Your task to perform on an android device: Open Youtube and go to the subscriptions tab Image 0: 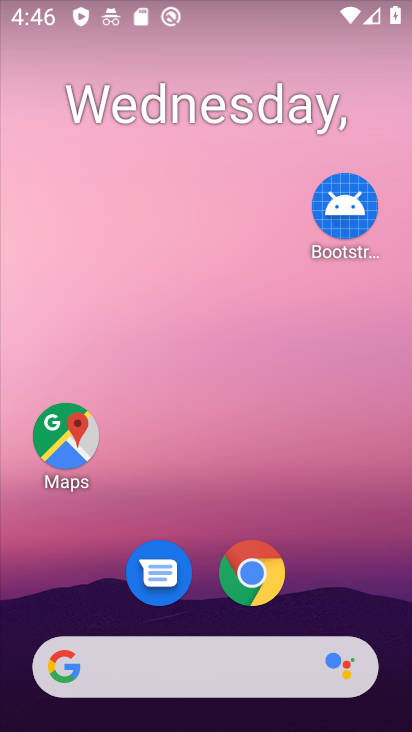
Step 0: drag from (361, 563) to (310, 151)
Your task to perform on an android device: Open Youtube and go to the subscriptions tab Image 1: 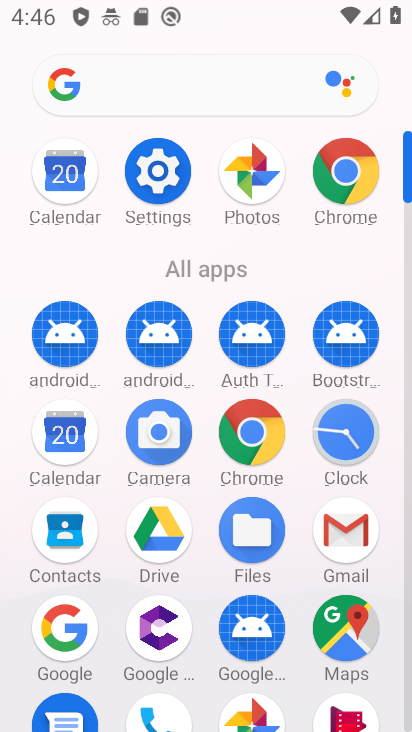
Step 1: drag from (298, 247) to (342, 54)
Your task to perform on an android device: Open Youtube and go to the subscriptions tab Image 2: 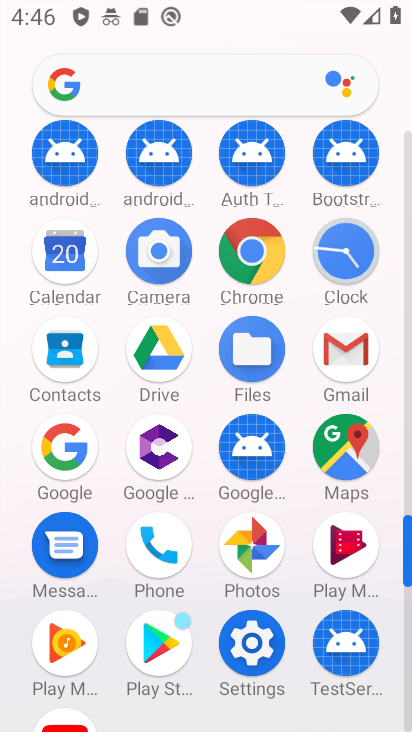
Step 2: drag from (201, 700) to (349, 350)
Your task to perform on an android device: Open Youtube and go to the subscriptions tab Image 3: 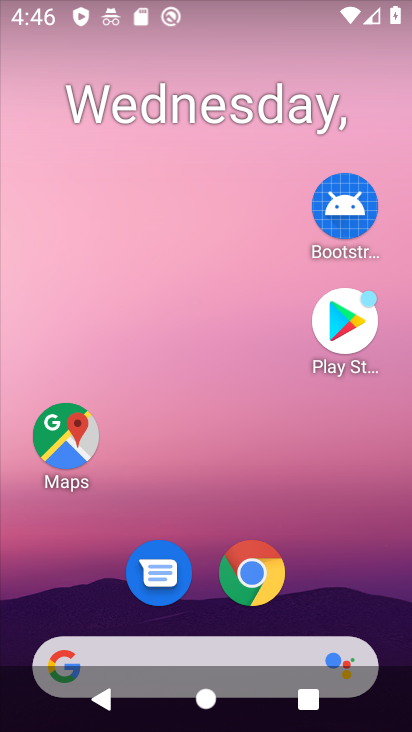
Step 3: click (354, 561)
Your task to perform on an android device: Open Youtube and go to the subscriptions tab Image 4: 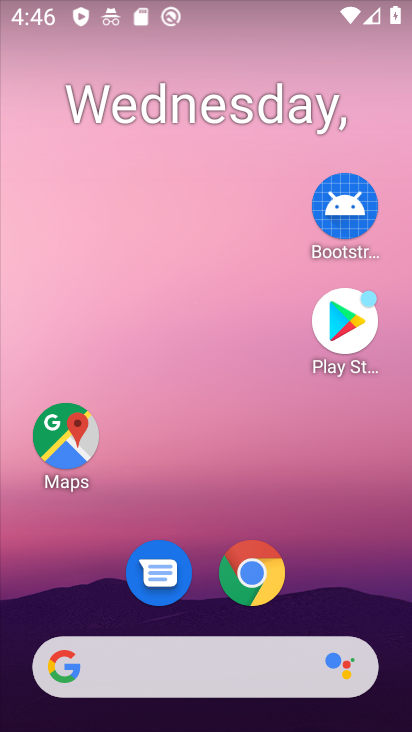
Step 4: drag from (367, 418) to (313, 85)
Your task to perform on an android device: Open Youtube and go to the subscriptions tab Image 5: 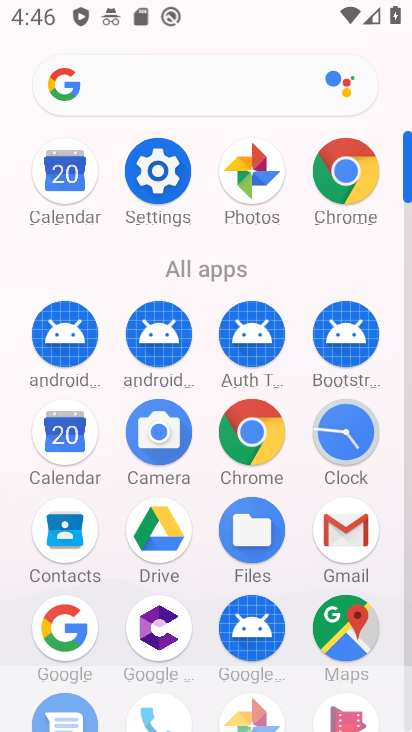
Step 5: drag from (294, 282) to (216, 39)
Your task to perform on an android device: Open Youtube and go to the subscriptions tab Image 6: 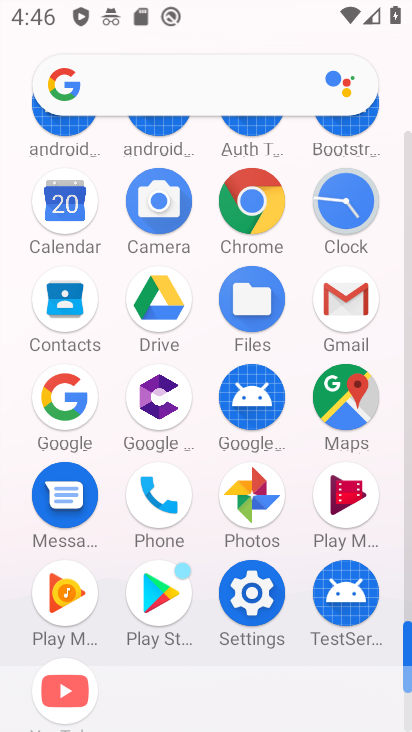
Step 6: click (56, 683)
Your task to perform on an android device: Open Youtube and go to the subscriptions tab Image 7: 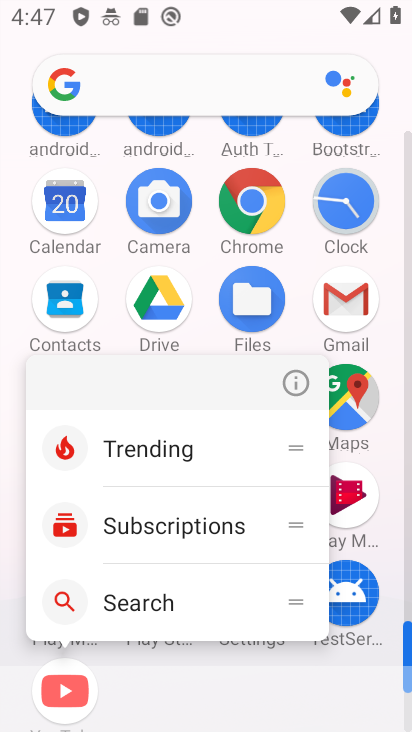
Step 7: click (62, 682)
Your task to perform on an android device: Open Youtube and go to the subscriptions tab Image 8: 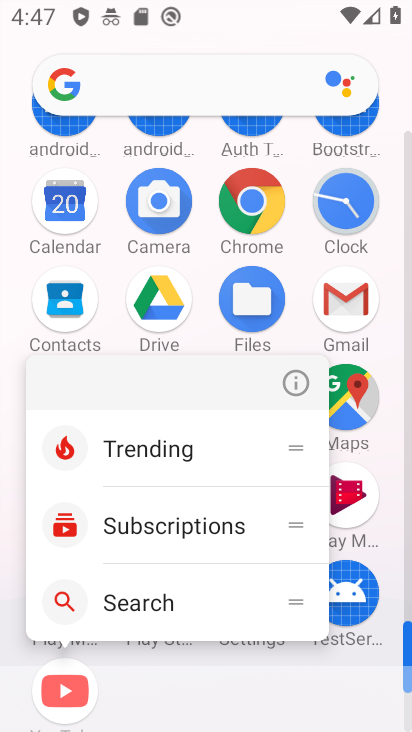
Step 8: drag from (307, 210) to (295, 18)
Your task to perform on an android device: Open Youtube and go to the subscriptions tab Image 9: 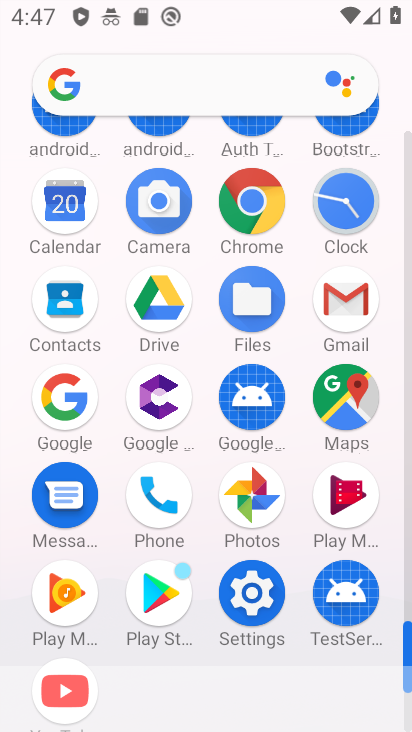
Step 9: click (67, 682)
Your task to perform on an android device: Open Youtube and go to the subscriptions tab Image 10: 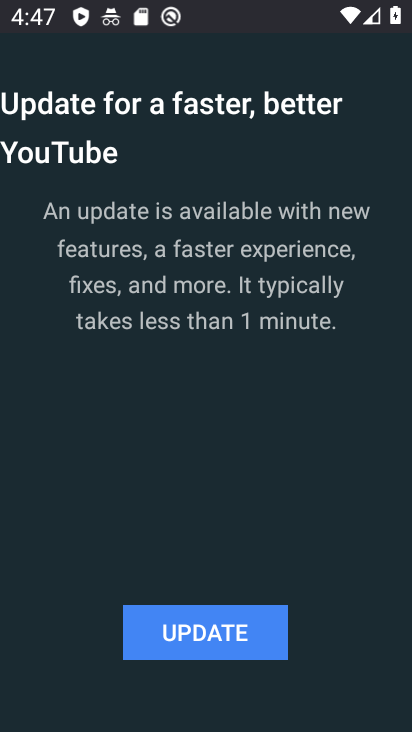
Step 10: click (235, 624)
Your task to perform on an android device: Open Youtube and go to the subscriptions tab Image 11: 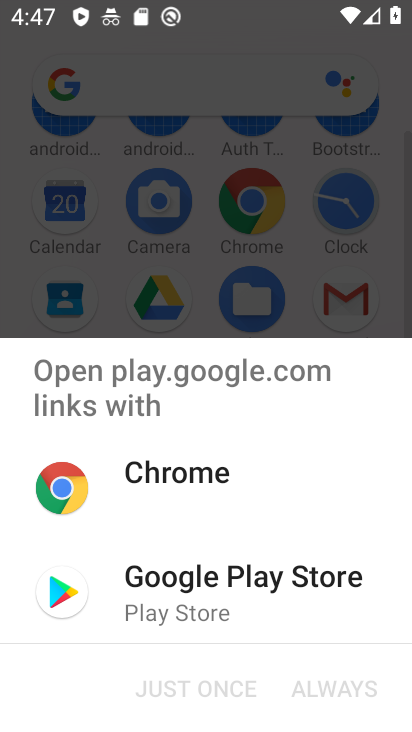
Step 11: click (232, 576)
Your task to perform on an android device: Open Youtube and go to the subscriptions tab Image 12: 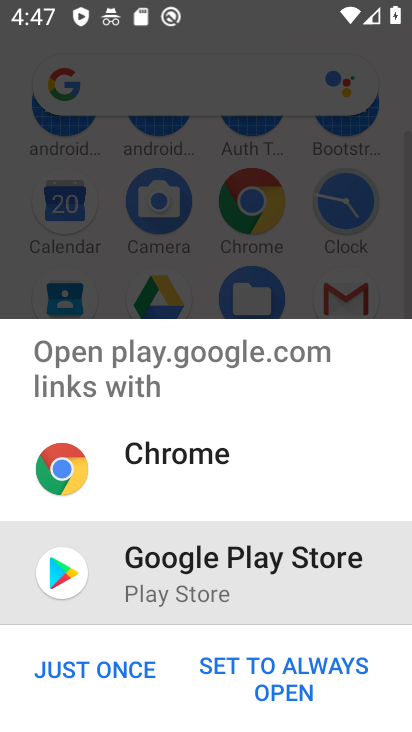
Step 12: click (122, 660)
Your task to perform on an android device: Open Youtube and go to the subscriptions tab Image 13: 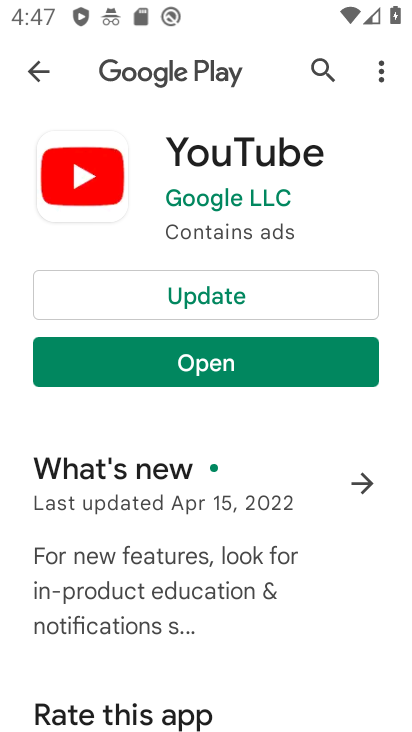
Step 13: click (261, 294)
Your task to perform on an android device: Open Youtube and go to the subscriptions tab Image 14: 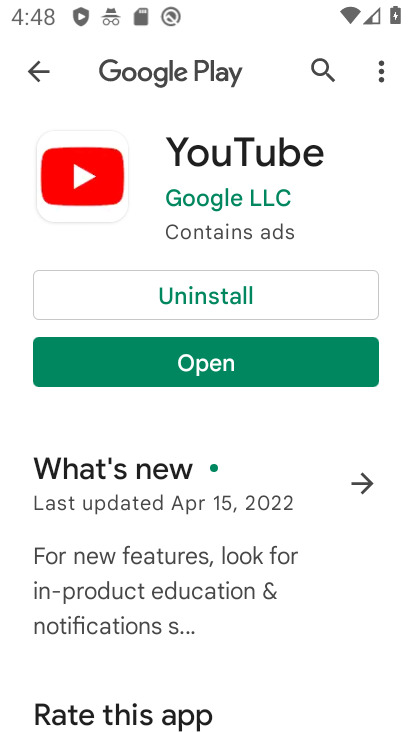
Step 14: click (215, 362)
Your task to perform on an android device: Open Youtube and go to the subscriptions tab Image 15: 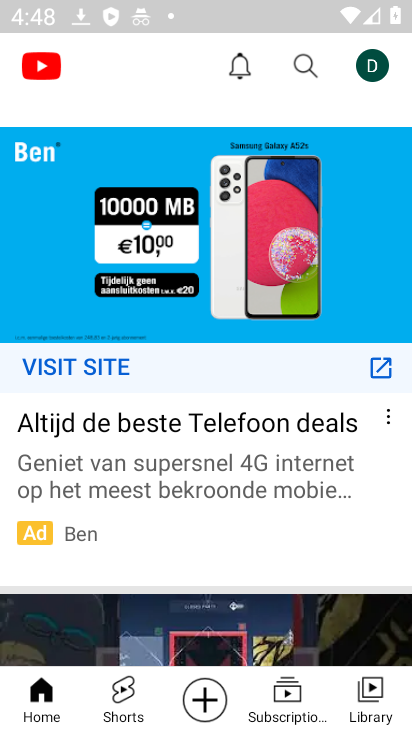
Step 15: click (294, 688)
Your task to perform on an android device: Open Youtube and go to the subscriptions tab Image 16: 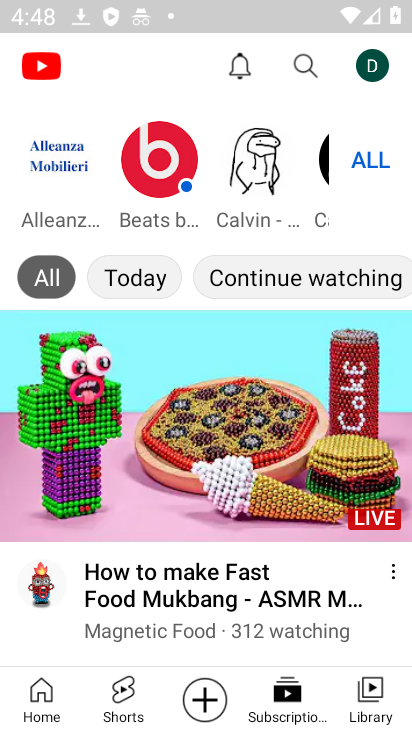
Step 16: click (294, 688)
Your task to perform on an android device: Open Youtube and go to the subscriptions tab Image 17: 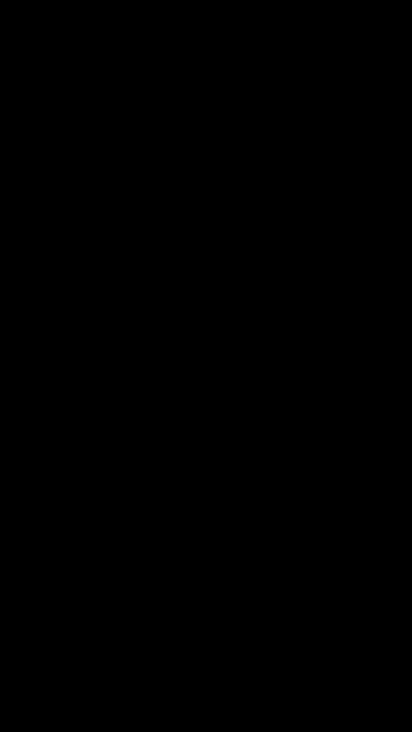
Step 17: task complete